Your task to perform on an android device: Go to CNN.com Image 0: 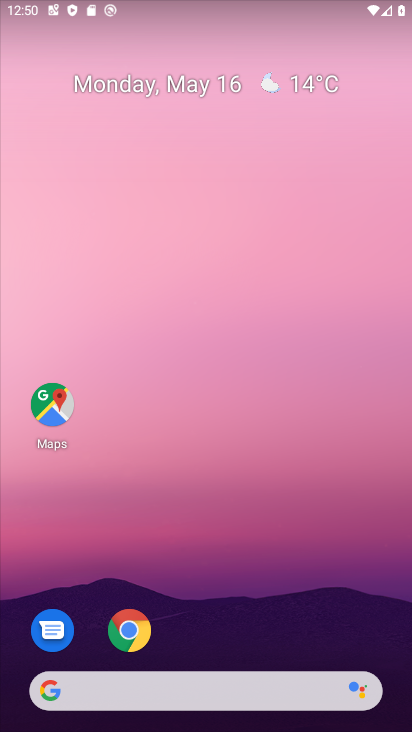
Step 0: click (150, 634)
Your task to perform on an android device: Go to CNN.com Image 1: 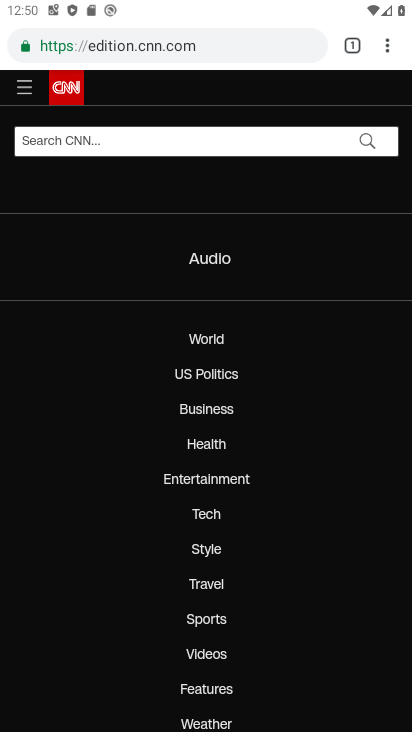
Step 1: task complete